Your task to perform on an android device: What's the weather? Image 0: 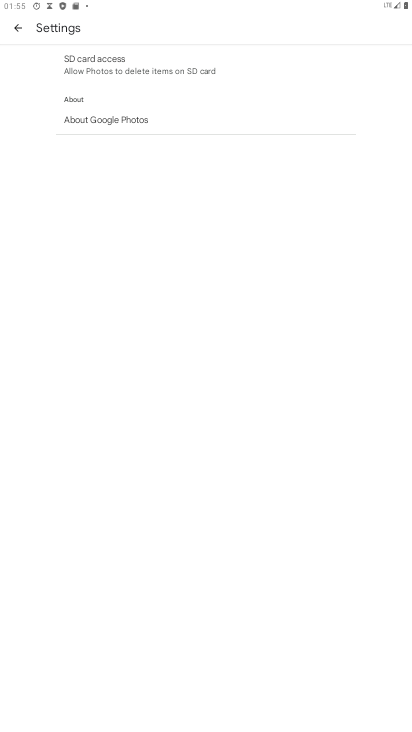
Step 0: press home button
Your task to perform on an android device: What's the weather? Image 1: 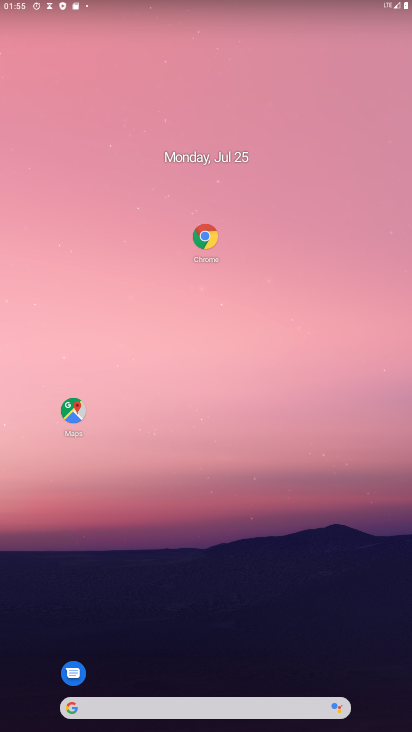
Step 1: drag from (193, 719) to (178, 73)
Your task to perform on an android device: What's the weather? Image 2: 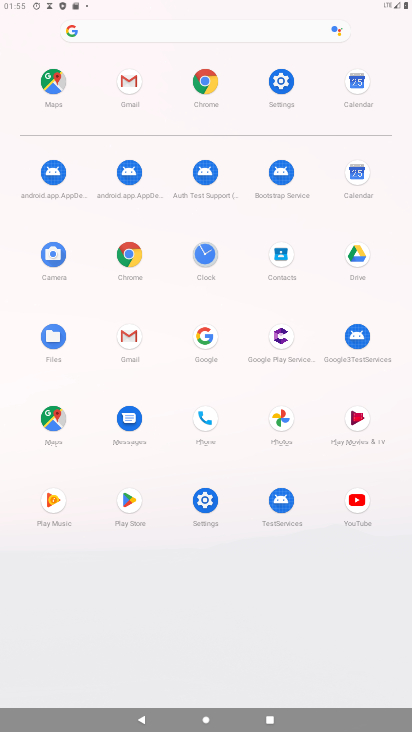
Step 2: click (130, 263)
Your task to perform on an android device: What's the weather? Image 3: 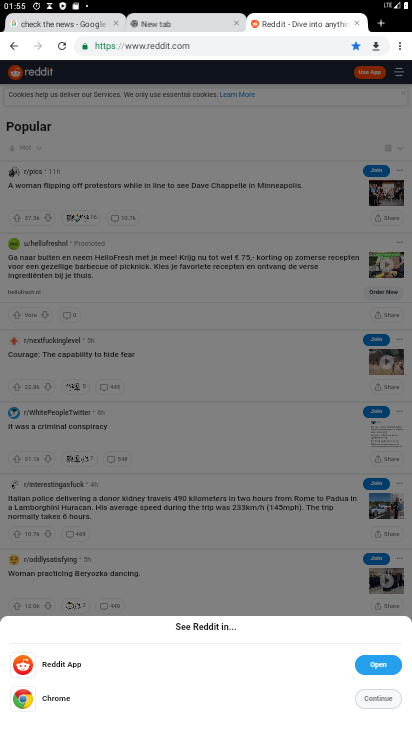
Step 3: click (256, 39)
Your task to perform on an android device: What's the weather? Image 4: 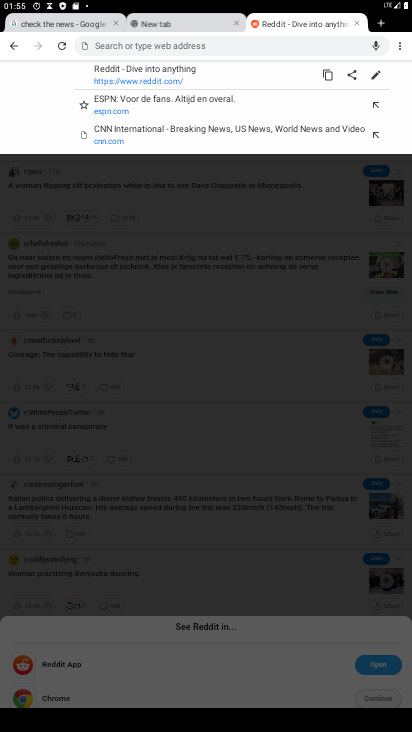
Step 4: type "whats the weather"
Your task to perform on an android device: What's the weather? Image 5: 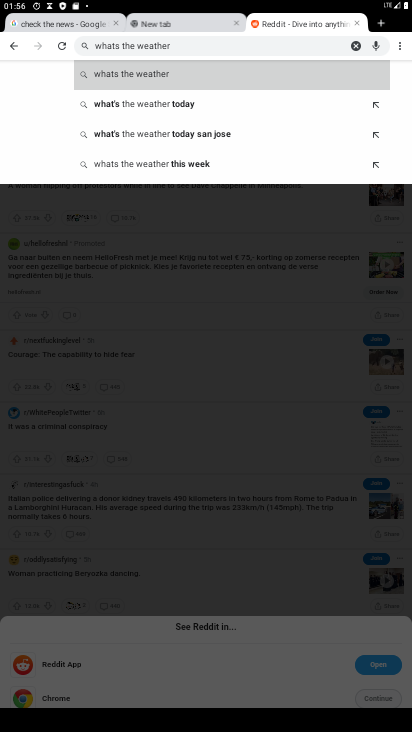
Step 5: click (141, 67)
Your task to perform on an android device: What's the weather? Image 6: 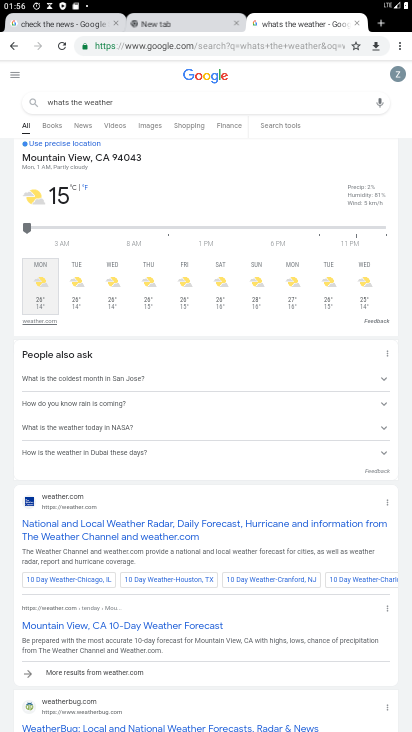
Step 6: task complete